Your task to perform on an android device: read, delete, or share a saved page in the chrome app Image 0: 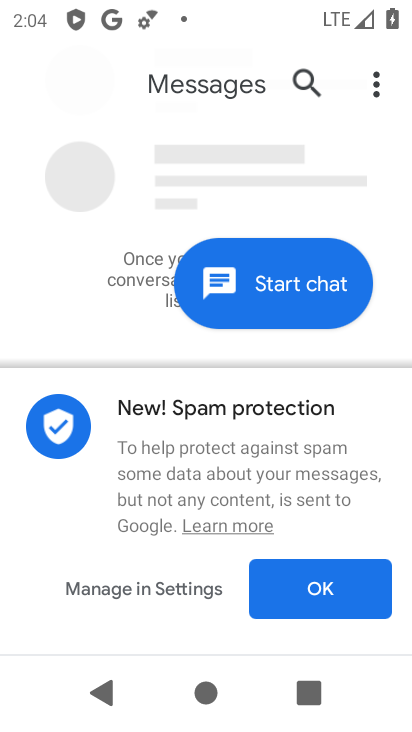
Step 0: press home button
Your task to perform on an android device: read, delete, or share a saved page in the chrome app Image 1: 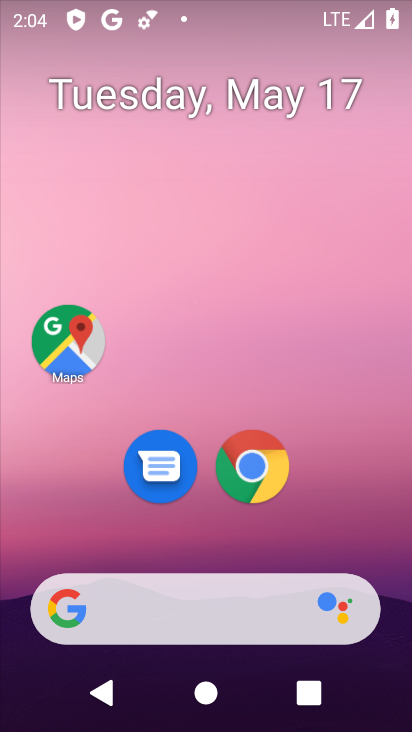
Step 1: click (257, 472)
Your task to perform on an android device: read, delete, or share a saved page in the chrome app Image 2: 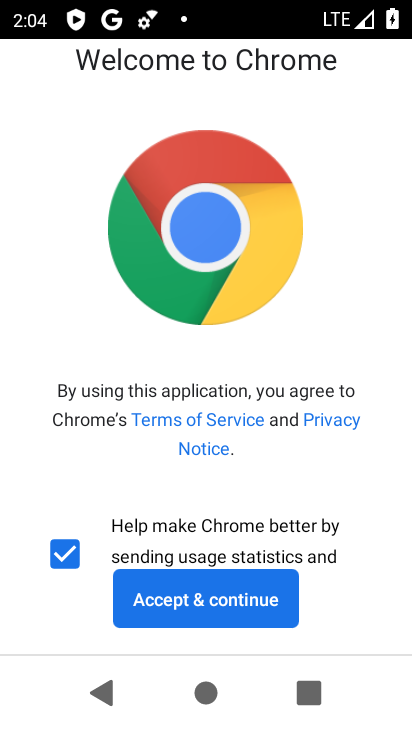
Step 2: click (250, 600)
Your task to perform on an android device: read, delete, or share a saved page in the chrome app Image 3: 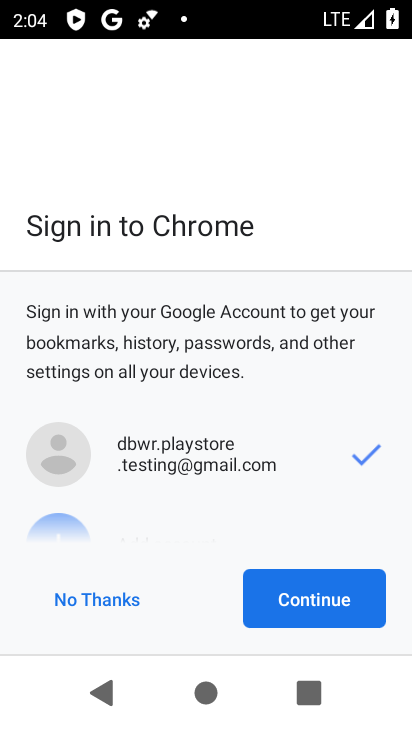
Step 3: click (289, 588)
Your task to perform on an android device: read, delete, or share a saved page in the chrome app Image 4: 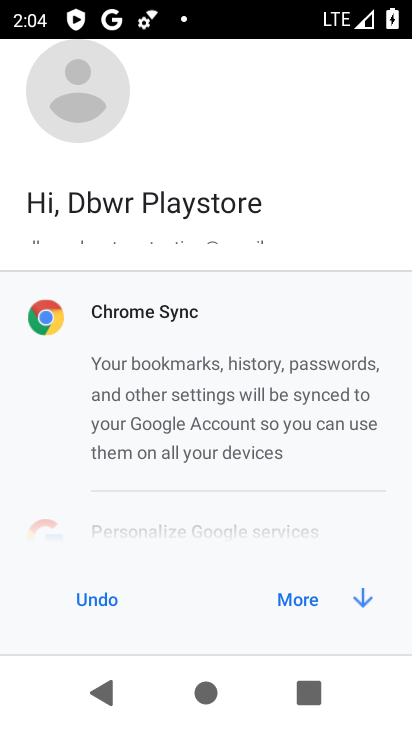
Step 4: click (273, 603)
Your task to perform on an android device: read, delete, or share a saved page in the chrome app Image 5: 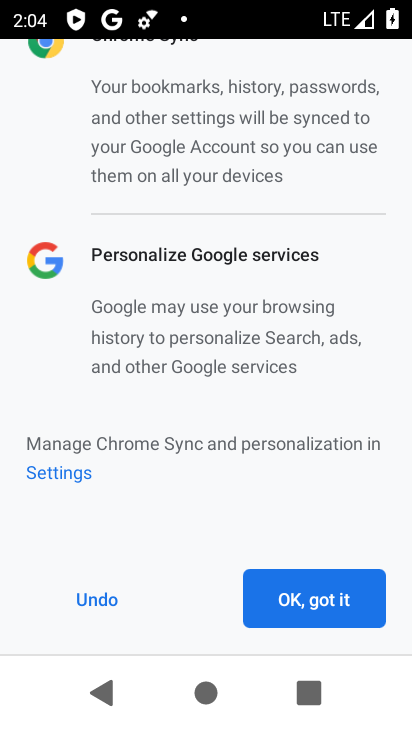
Step 5: click (273, 603)
Your task to perform on an android device: read, delete, or share a saved page in the chrome app Image 6: 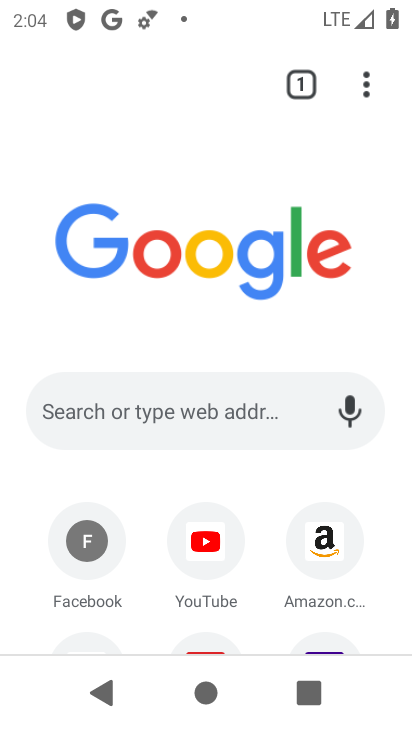
Step 6: task complete